Your task to perform on an android device: Go to Google Image 0: 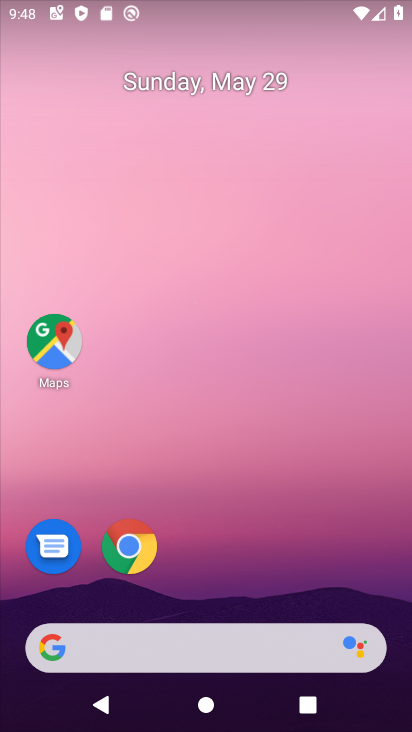
Step 0: drag from (269, 600) to (226, 255)
Your task to perform on an android device: Go to Google Image 1: 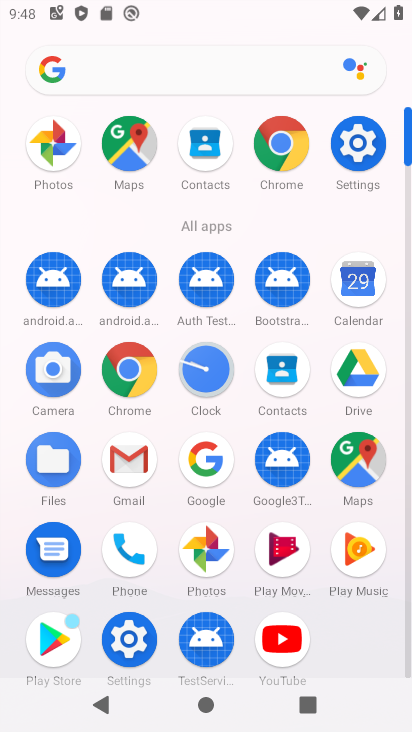
Step 1: click (204, 474)
Your task to perform on an android device: Go to Google Image 2: 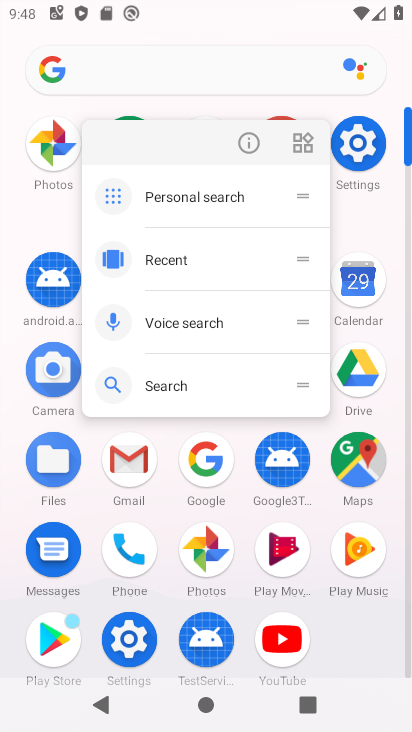
Step 2: click (204, 474)
Your task to perform on an android device: Go to Google Image 3: 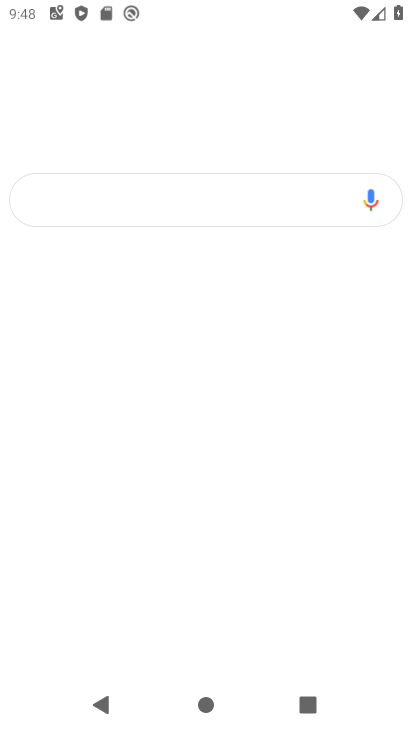
Step 3: click (204, 474)
Your task to perform on an android device: Go to Google Image 4: 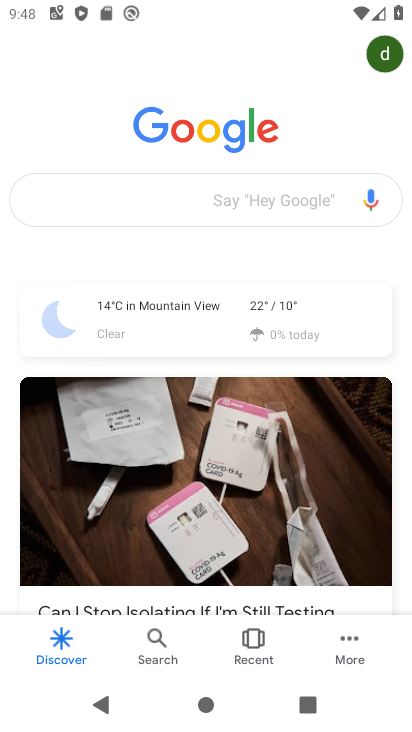
Step 4: task complete